Your task to perform on an android device: delete location history Image 0: 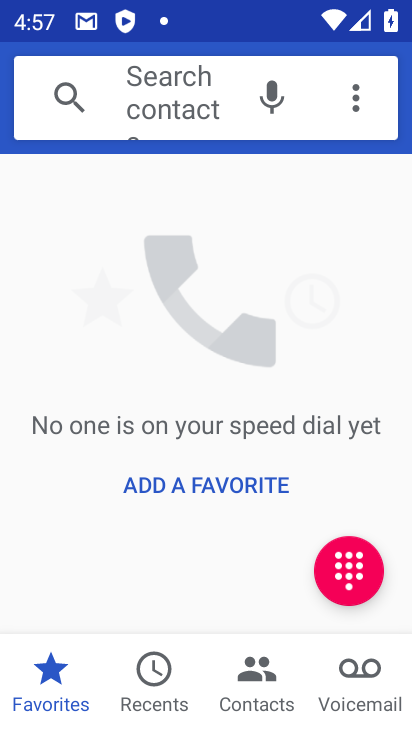
Step 0: press home button
Your task to perform on an android device: delete location history Image 1: 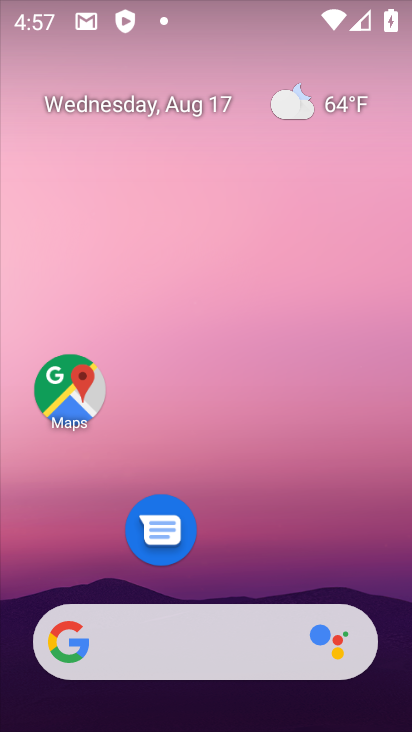
Step 1: click (224, 15)
Your task to perform on an android device: delete location history Image 2: 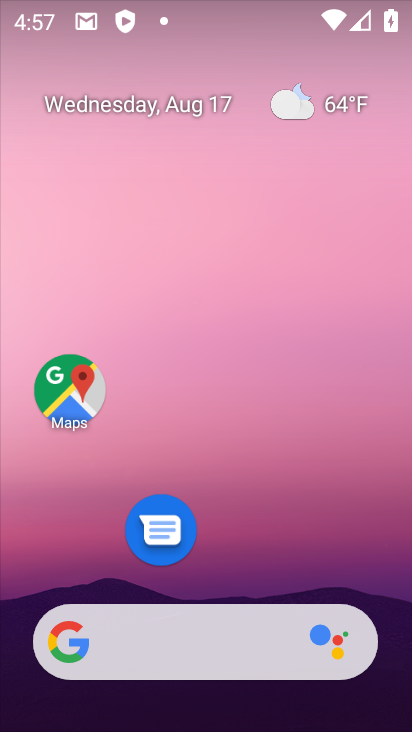
Step 2: drag from (209, 532) to (206, 115)
Your task to perform on an android device: delete location history Image 3: 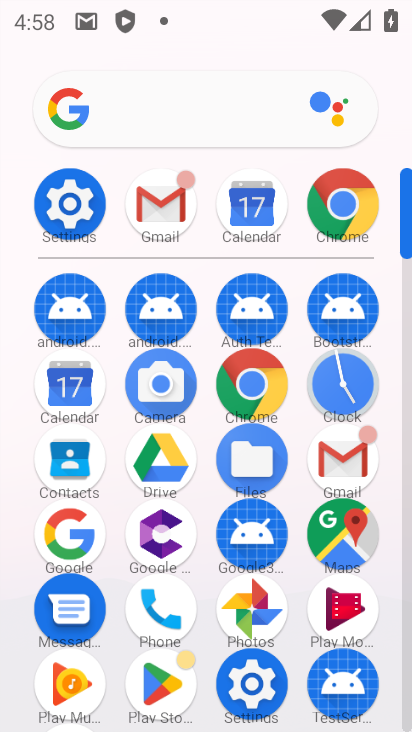
Step 3: click (338, 545)
Your task to perform on an android device: delete location history Image 4: 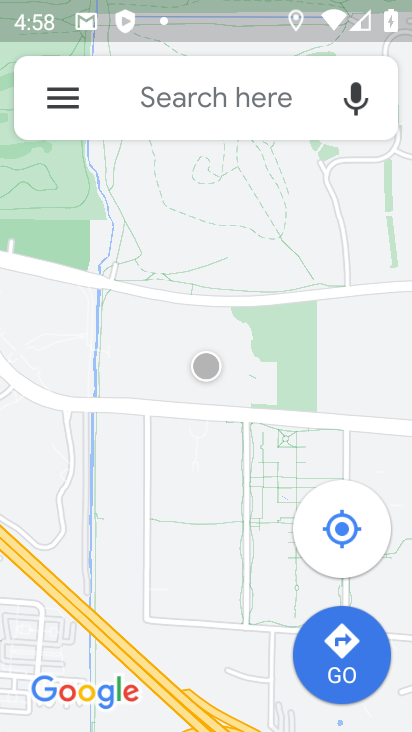
Step 4: click (45, 95)
Your task to perform on an android device: delete location history Image 5: 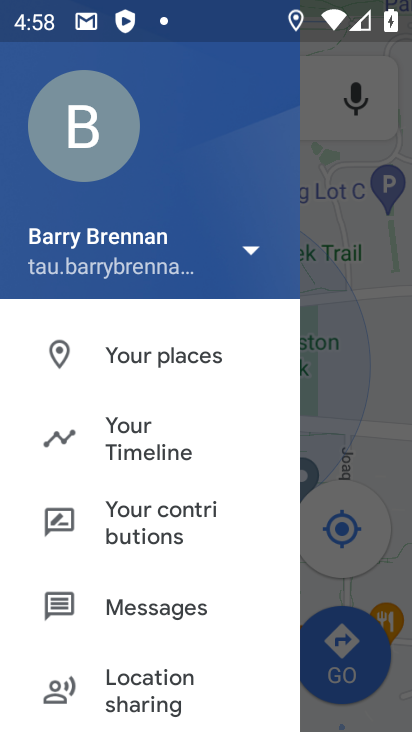
Step 5: click (126, 428)
Your task to perform on an android device: delete location history Image 6: 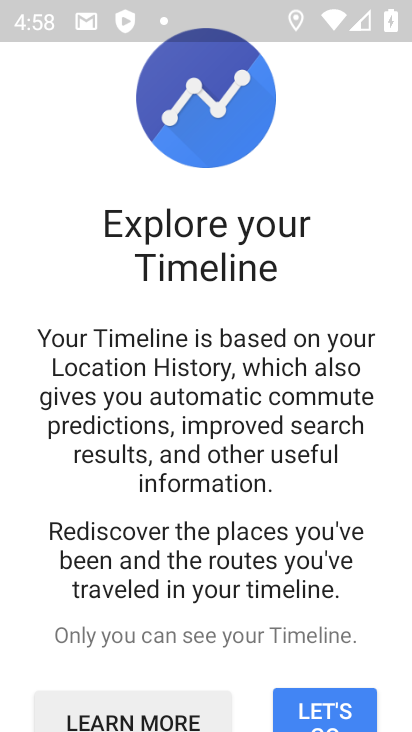
Step 6: drag from (242, 612) to (209, 157)
Your task to perform on an android device: delete location history Image 7: 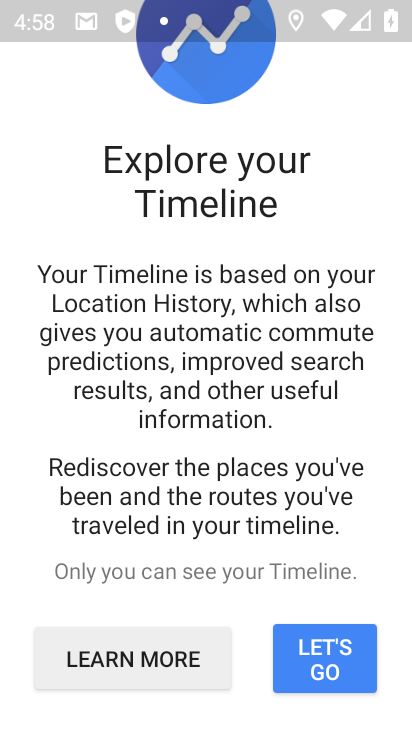
Step 7: click (309, 656)
Your task to perform on an android device: delete location history Image 8: 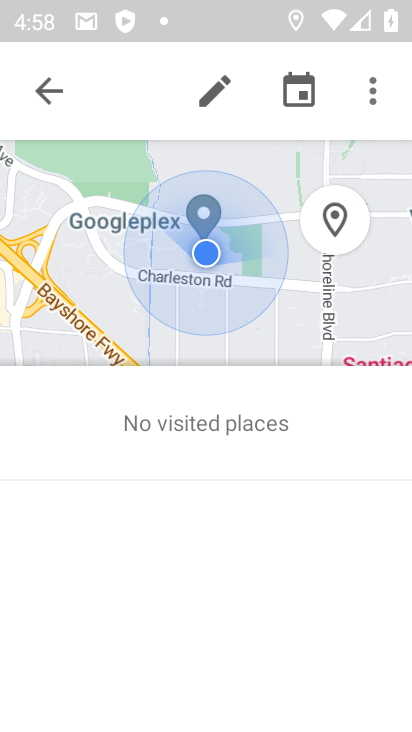
Step 8: click (371, 95)
Your task to perform on an android device: delete location history Image 9: 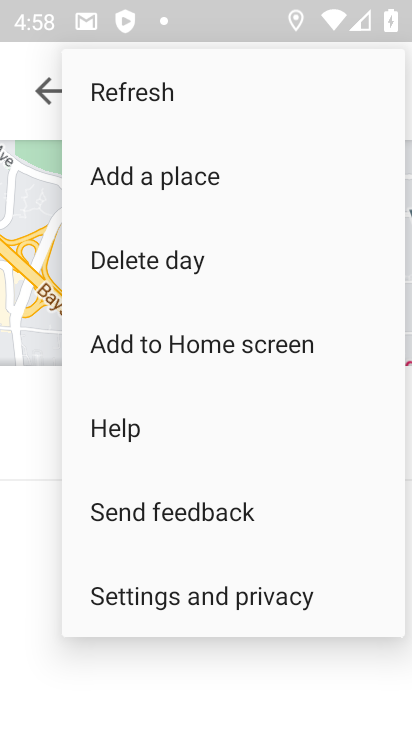
Step 9: click (171, 605)
Your task to perform on an android device: delete location history Image 10: 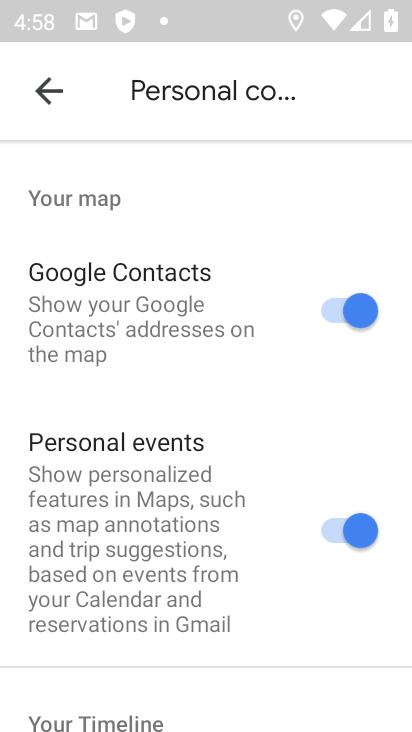
Step 10: drag from (233, 614) to (229, 0)
Your task to perform on an android device: delete location history Image 11: 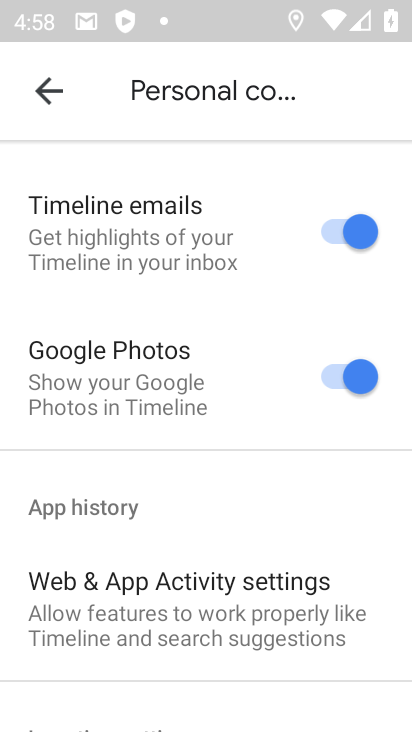
Step 11: drag from (166, 521) to (182, 95)
Your task to perform on an android device: delete location history Image 12: 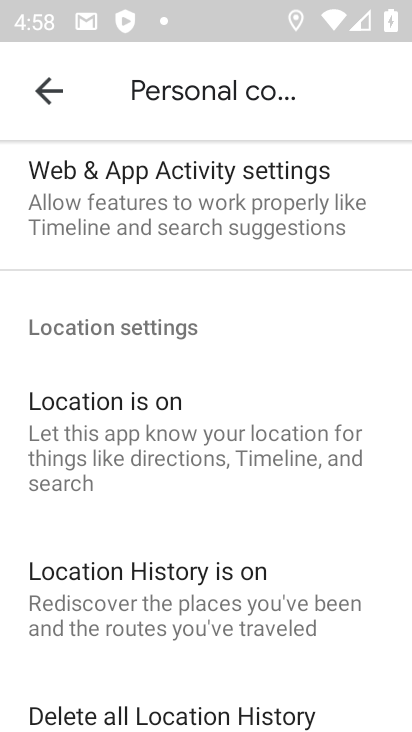
Step 12: drag from (192, 686) to (233, 283)
Your task to perform on an android device: delete location history Image 13: 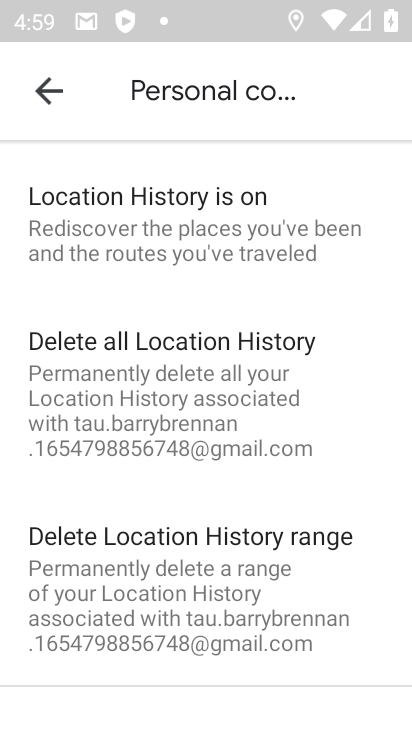
Step 13: click (170, 419)
Your task to perform on an android device: delete location history Image 14: 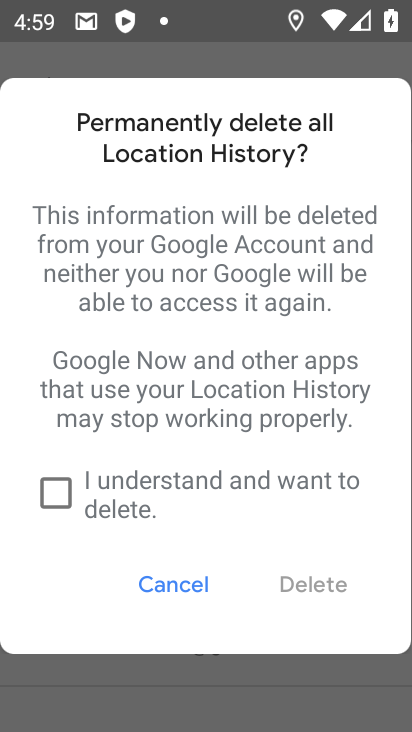
Step 14: click (55, 495)
Your task to perform on an android device: delete location history Image 15: 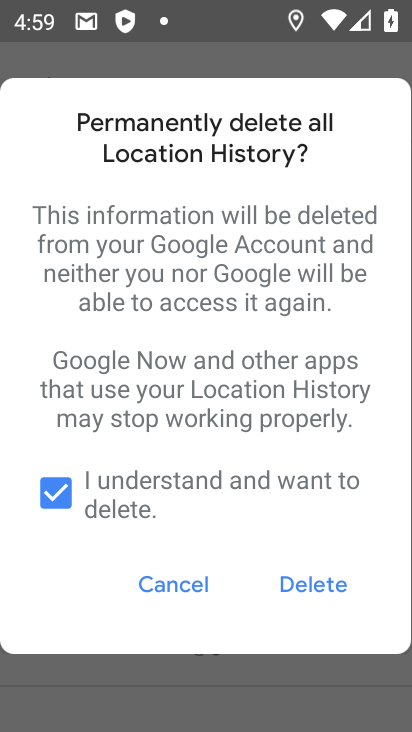
Step 15: click (322, 589)
Your task to perform on an android device: delete location history Image 16: 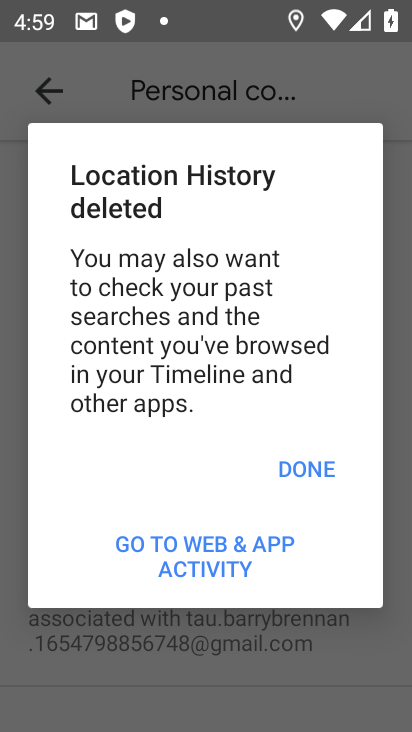
Step 16: click (297, 469)
Your task to perform on an android device: delete location history Image 17: 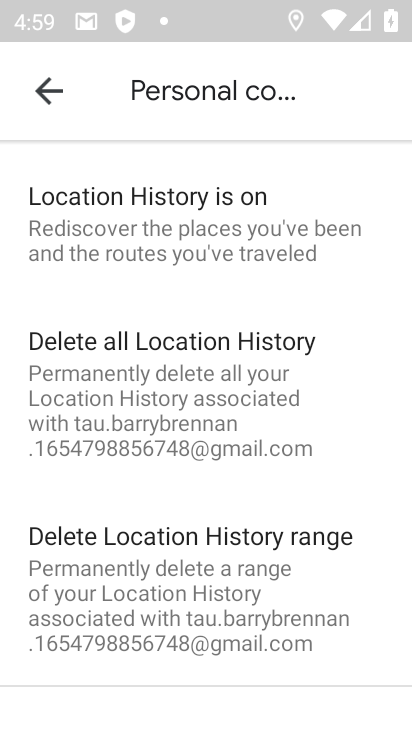
Step 17: task complete